Your task to perform on an android device: create a new album in the google photos Image 0: 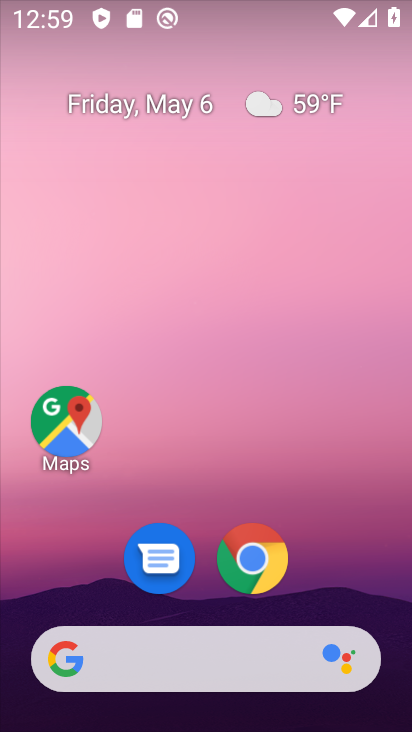
Step 0: drag from (216, 728) to (215, 163)
Your task to perform on an android device: create a new album in the google photos Image 1: 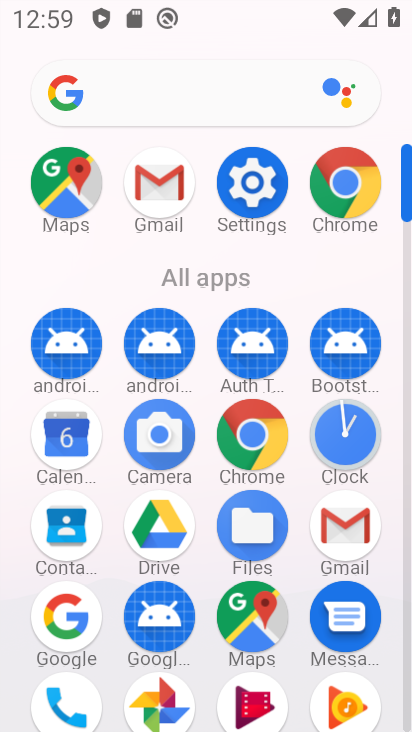
Step 1: click (161, 692)
Your task to perform on an android device: create a new album in the google photos Image 2: 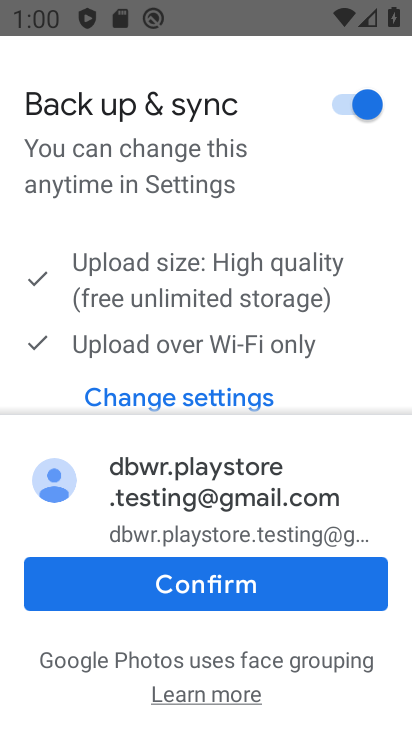
Step 2: click (228, 590)
Your task to perform on an android device: create a new album in the google photos Image 3: 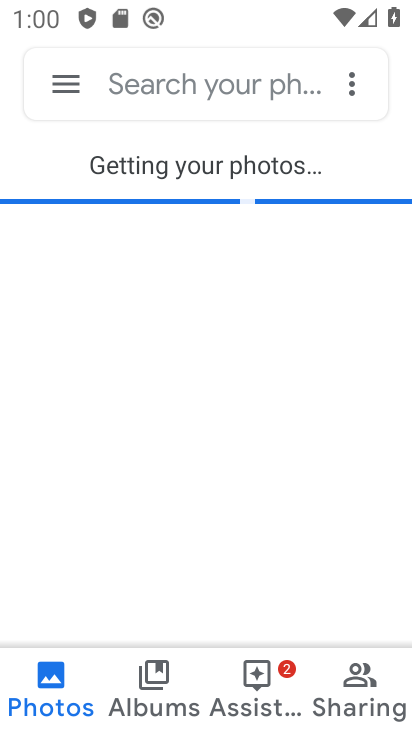
Step 3: click (350, 88)
Your task to perform on an android device: create a new album in the google photos Image 4: 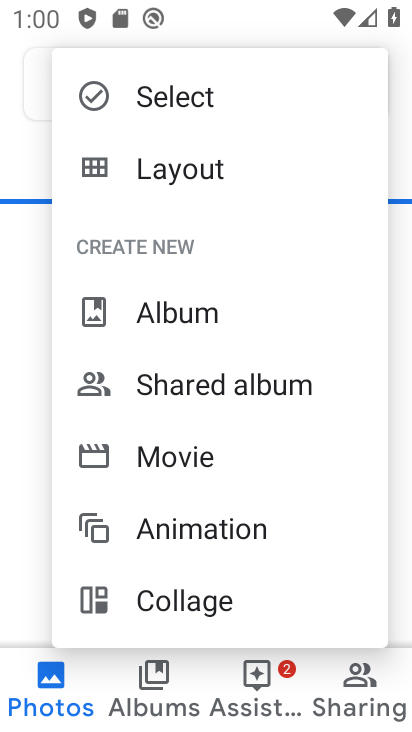
Step 4: click (170, 309)
Your task to perform on an android device: create a new album in the google photos Image 5: 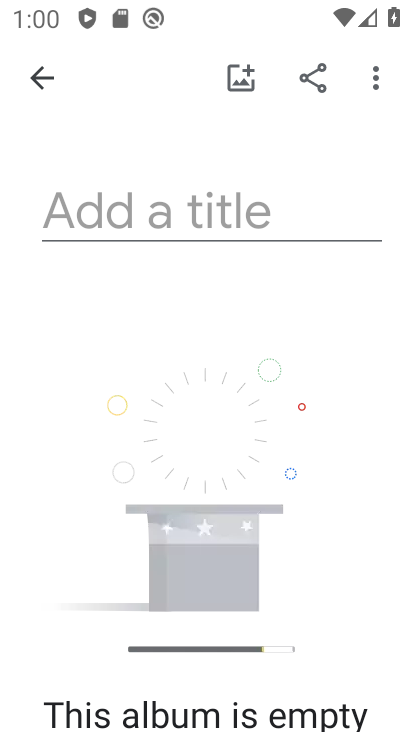
Step 5: click (161, 220)
Your task to perform on an android device: create a new album in the google photos Image 6: 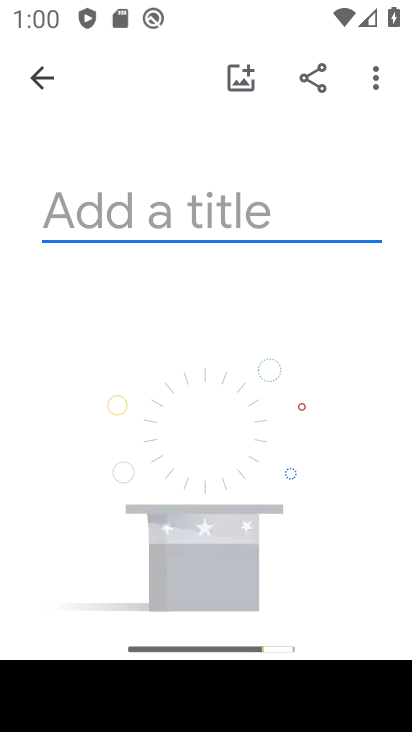
Step 6: type "add pic"
Your task to perform on an android device: create a new album in the google photos Image 7: 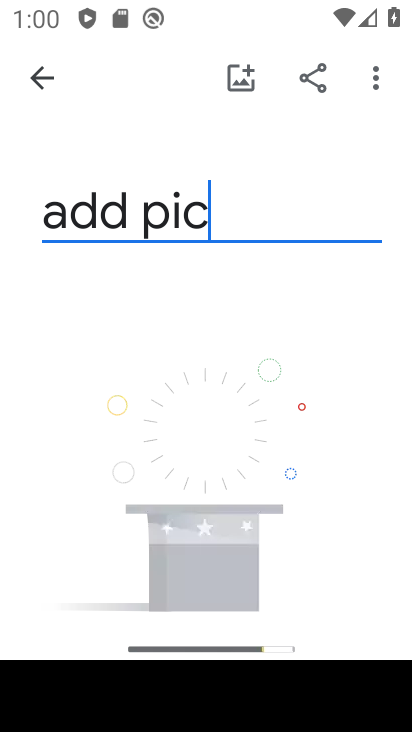
Step 7: type ""
Your task to perform on an android device: create a new album in the google photos Image 8: 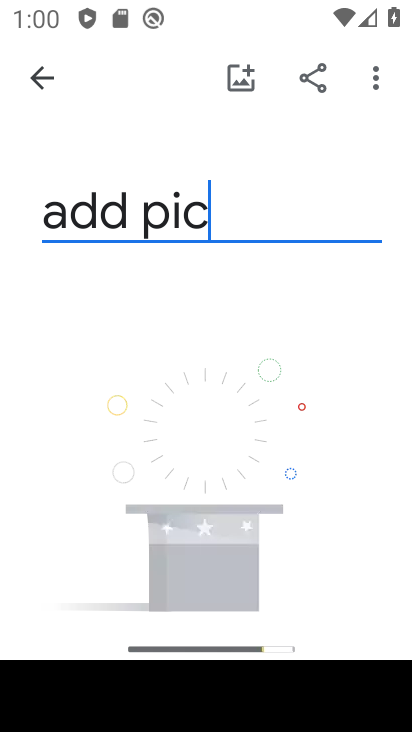
Step 8: click (234, 499)
Your task to perform on an android device: create a new album in the google photos Image 9: 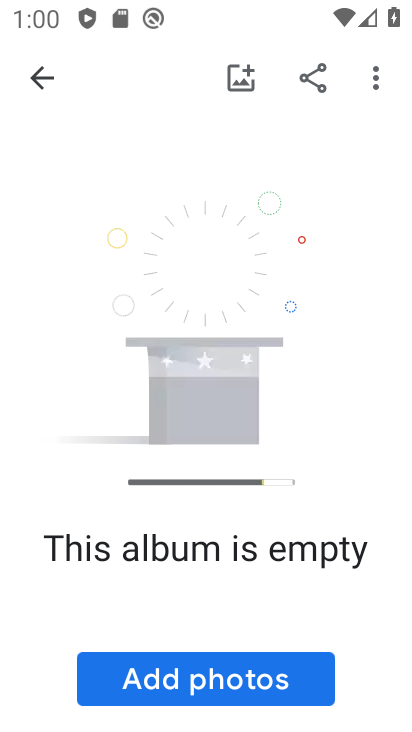
Step 9: click (200, 677)
Your task to perform on an android device: create a new album in the google photos Image 10: 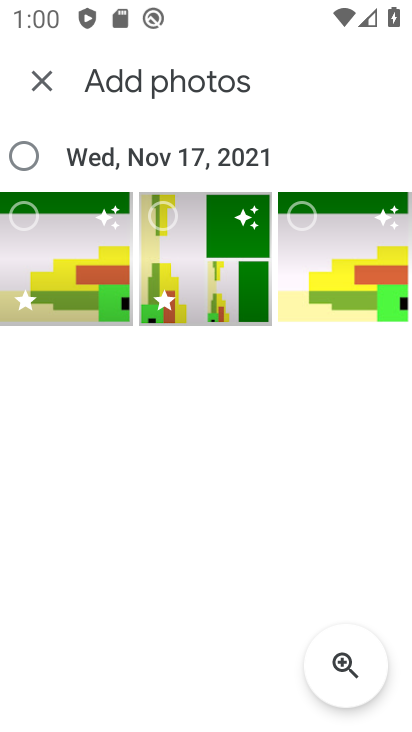
Step 10: click (24, 212)
Your task to perform on an android device: create a new album in the google photos Image 11: 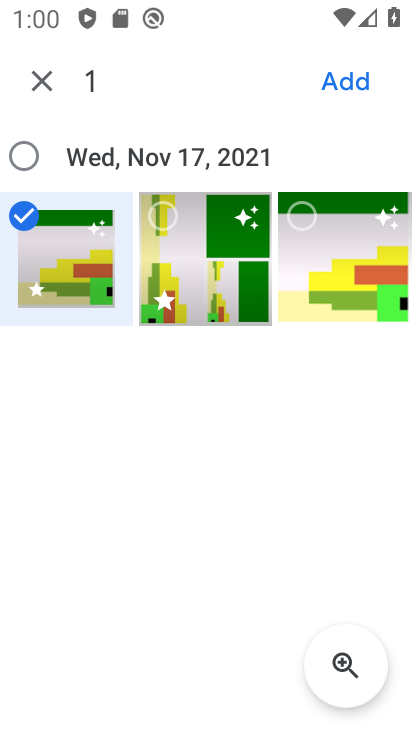
Step 11: click (351, 75)
Your task to perform on an android device: create a new album in the google photos Image 12: 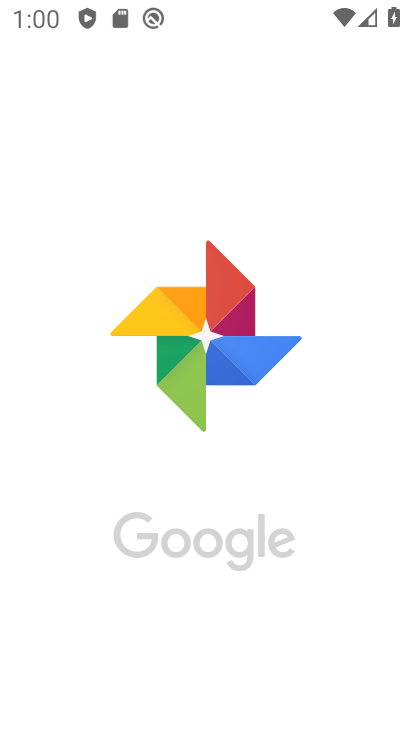
Step 12: task complete